Your task to perform on an android device: toggle translation in the chrome app Image 0: 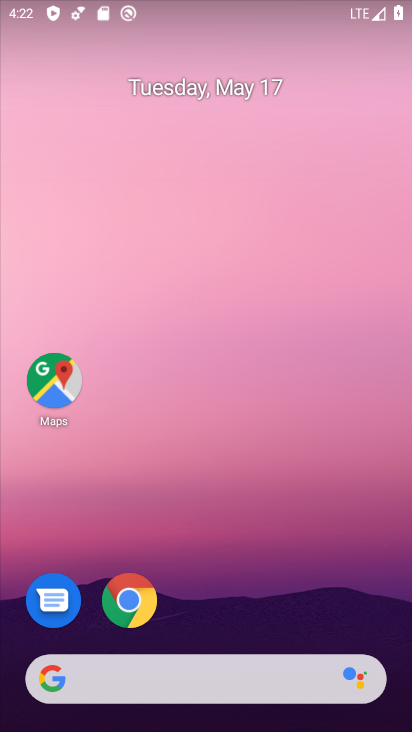
Step 0: click (122, 595)
Your task to perform on an android device: toggle translation in the chrome app Image 1: 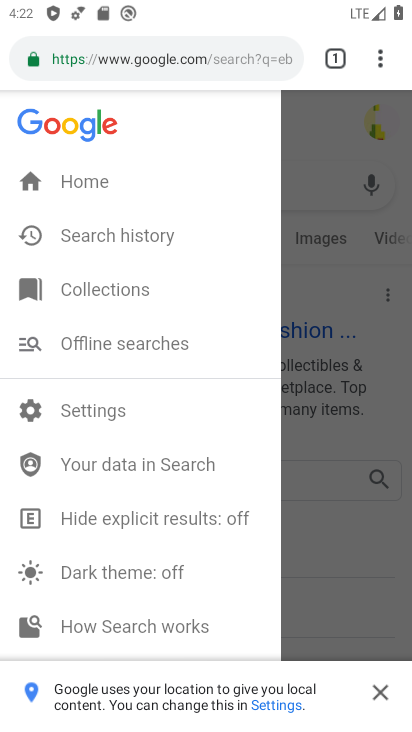
Step 1: click (378, 60)
Your task to perform on an android device: toggle translation in the chrome app Image 2: 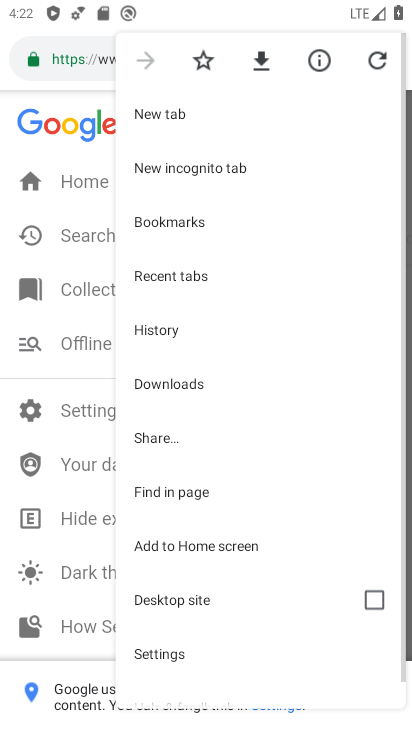
Step 2: drag from (218, 606) to (257, 169)
Your task to perform on an android device: toggle translation in the chrome app Image 3: 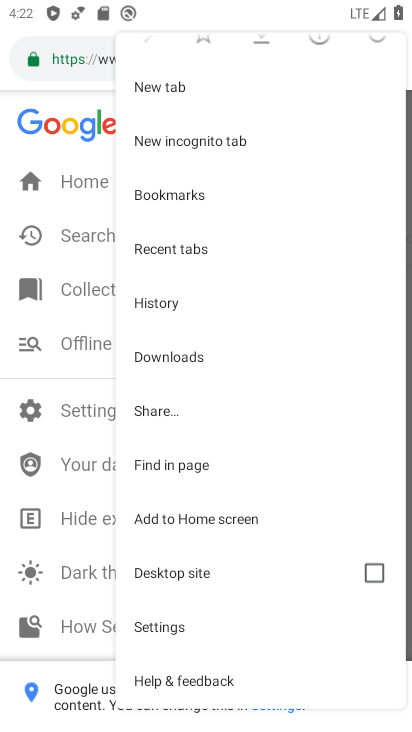
Step 3: click (178, 606)
Your task to perform on an android device: toggle translation in the chrome app Image 4: 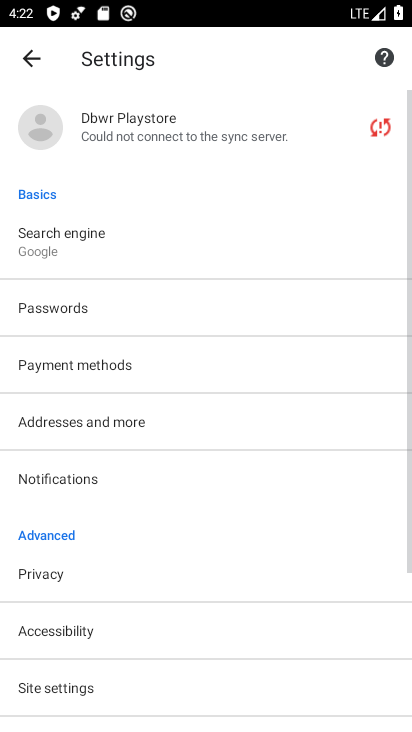
Step 4: drag from (291, 663) to (283, 254)
Your task to perform on an android device: toggle translation in the chrome app Image 5: 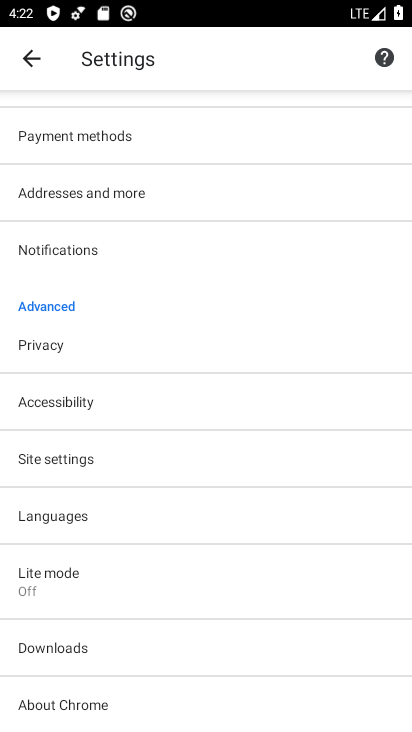
Step 5: click (71, 525)
Your task to perform on an android device: toggle translation in the chrome app Image 6: 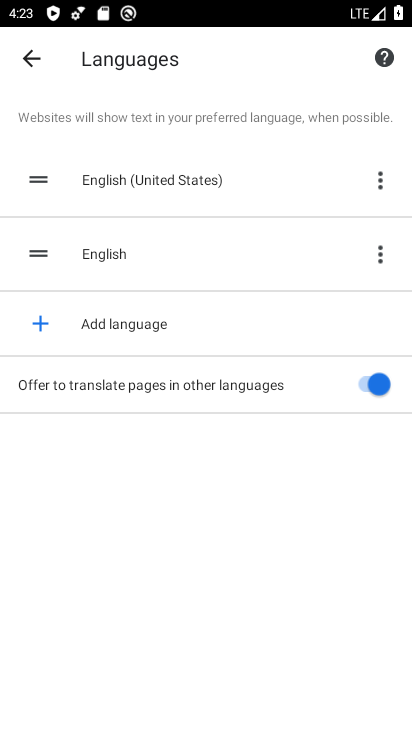
Step 6: click (361, 384)
Your task to perform on an android device: toggle translation in the chrome app Image 7: 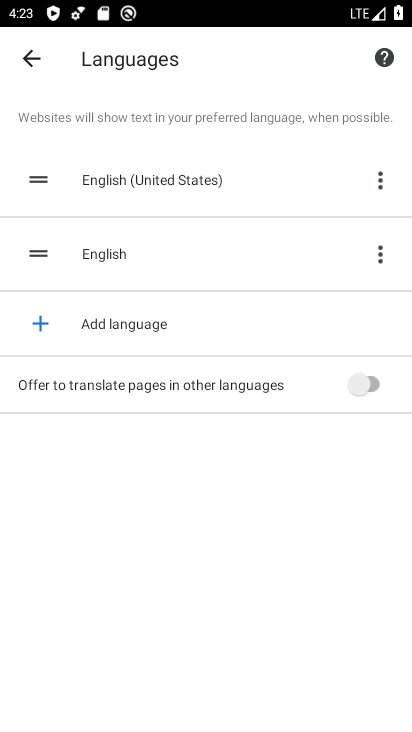
Step 7: task complete